Your task to perform on an android device: turn off smart reply in the gmail app Image 0: 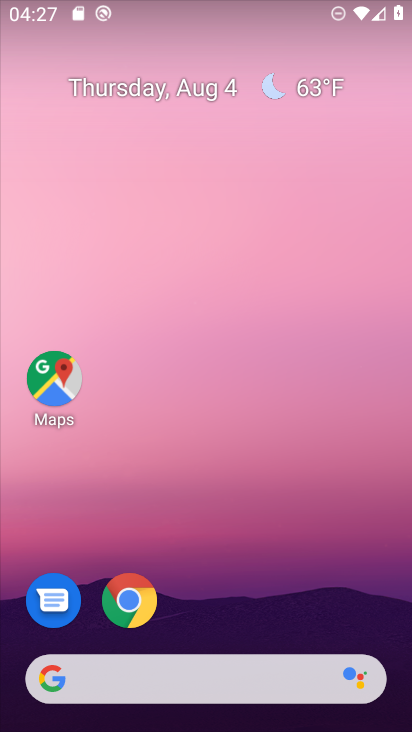
Step 0: drag from (251, 628) to (219, 110)
Your task to perform on an android device: turn off smart reply in the gmail app Image 1: 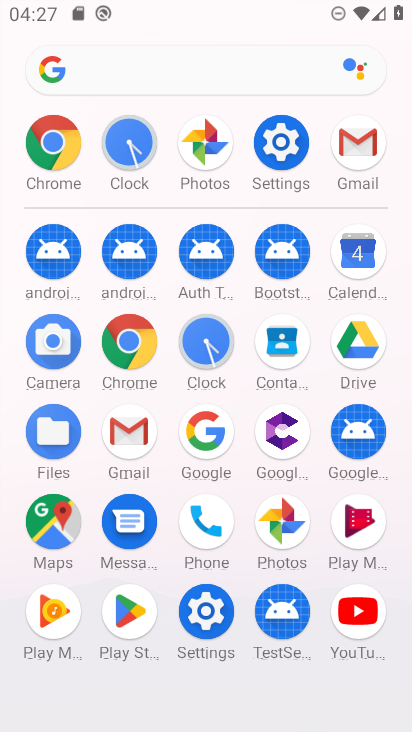
Step 1: click (129, 445)
Your task to perform on an android device: turn off smart reply in the gmail app Image 2: 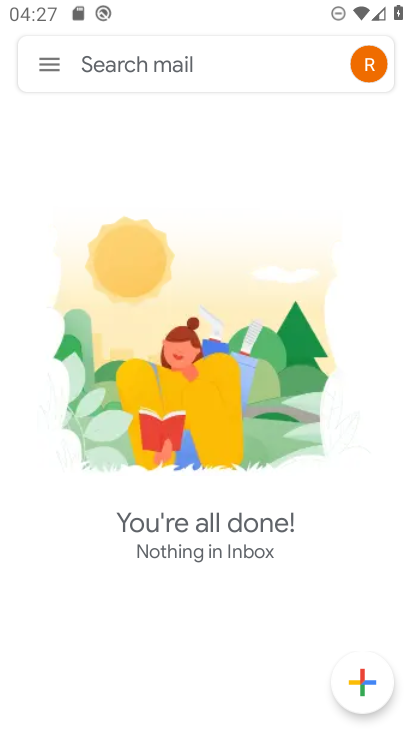
Step 2: click (45, 55)
Your task to perform on an android device: turn off smart reply in the gmail app Image 3: 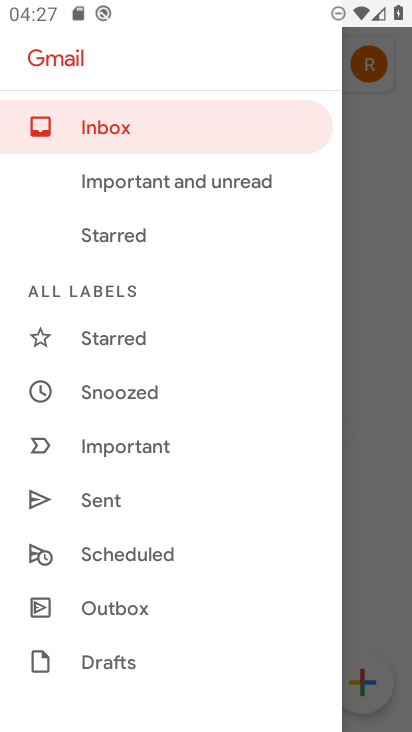
Step 3: drag from (128, 637) to (206, 328)
Your task to perform on an android device: turn off smart reply in the gmail app Image 4: 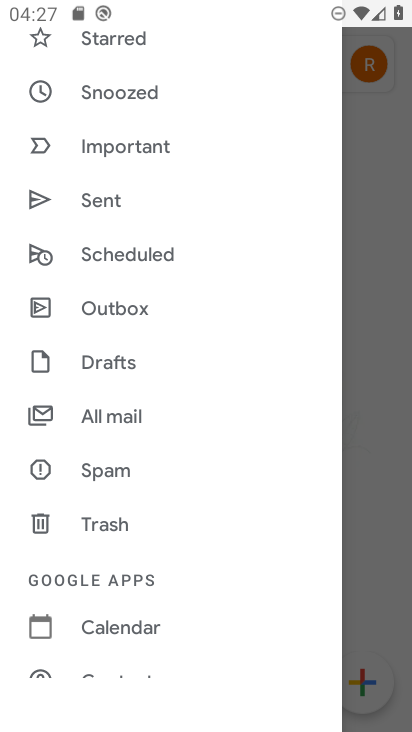
Step 4: drag from (113, 583) to (244, 269)
Your task to perform on an android device: turn off smart reply in the gmail app Image 5: 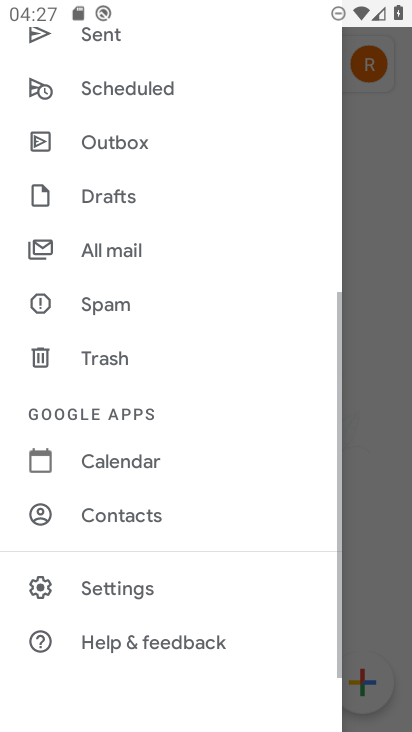
Step 5: click (140, 591)
Your task to perform on an android device: turn off smart reply in the gmail app Image 6: 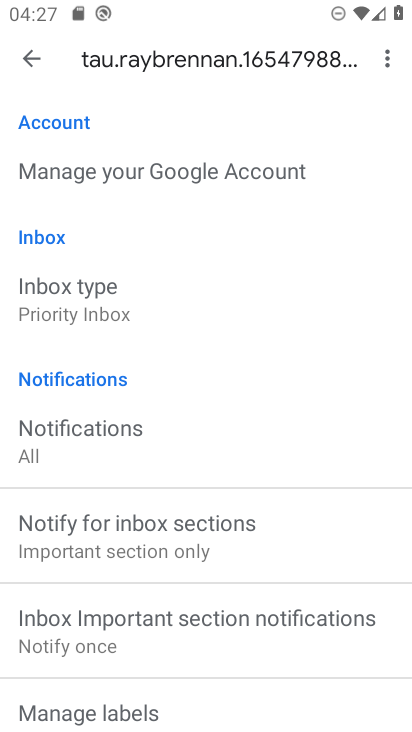
Step 6: task complete